Your task to perform on an android device: turn off wifi Image 0: 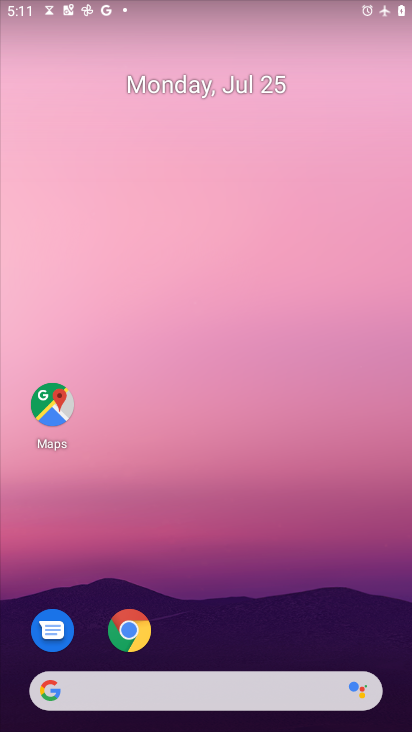
Step 0: drag from (200, 686) to (307, 58)
Your task to perform on an android device: turn off wifi Image 1: 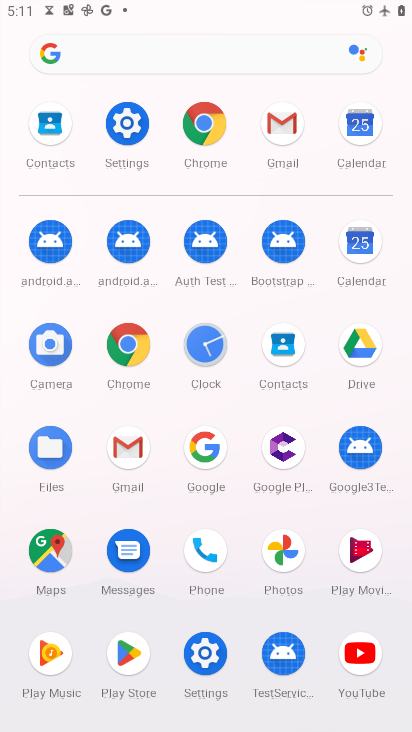
Step 1: click (126, 123)
Your task to perform on an android device: turn off wifi Image 2: 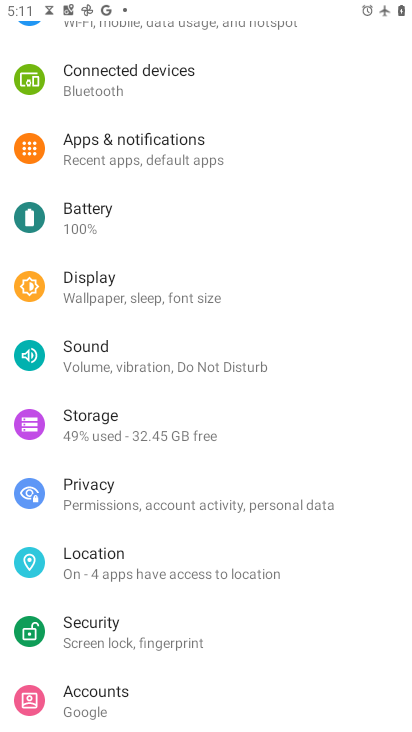
Step 2: drag from (179, 125) to (178, 366)
Your task to perform on an android device: turn off wifi Image 3: 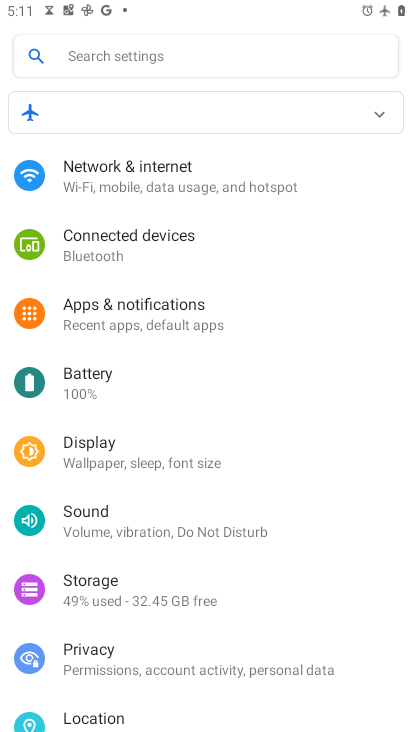
Step 3: click (147, 180)
Your task to perform on an android device: turn off wifi Image 4: 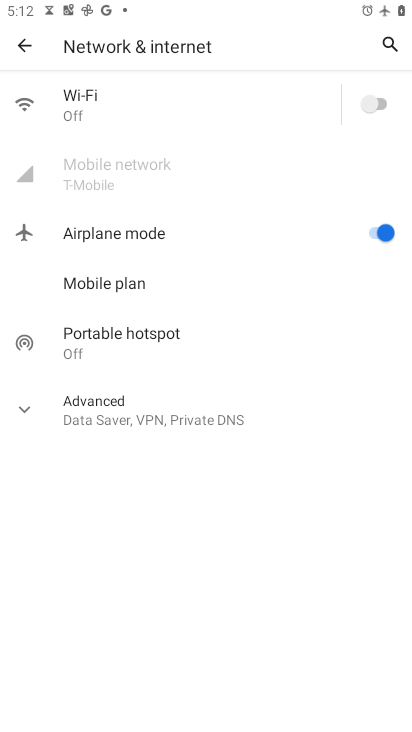
Step 4: task complete